Your task to perform on an android device: turn on the 12-hour format for clock Image 0: 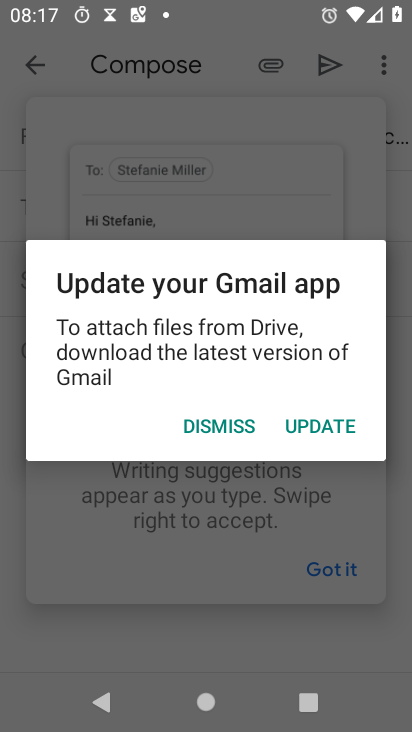
Step 0: press home button
Your task to perform on an android device: turn on the 12-hour format for clock Image 1: 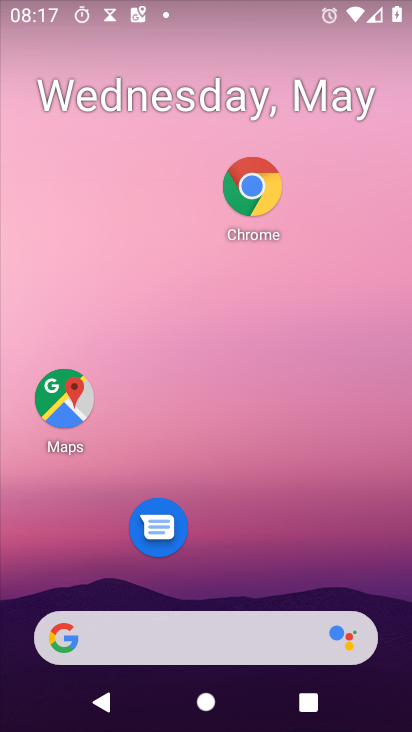
Step 1: drag from (268, 521) to (319, 87)
Your task to perform on an android device: turn on the 12-hour format for clock Image 2: 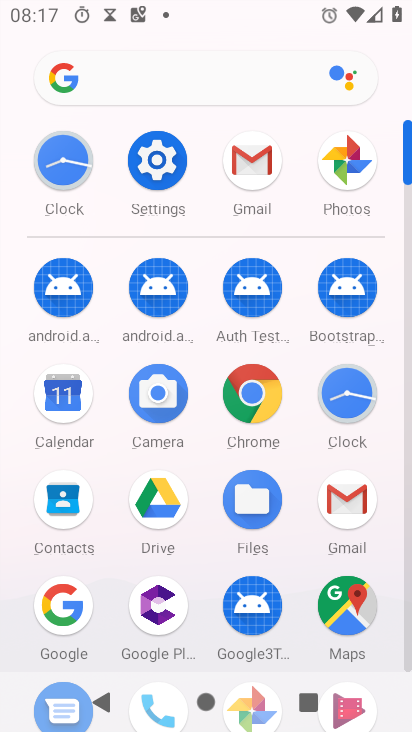
Step 2: click (347, 389)
Your task to perform on an android device: turn on the 12-hour format for clock Image 3: 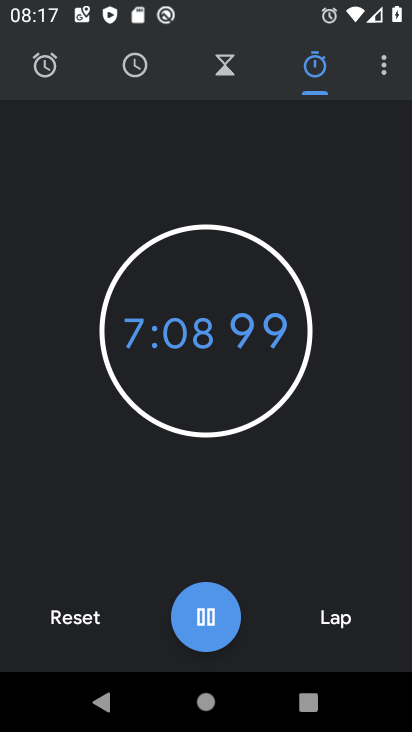
Step 3: click (384, 65)
Your task to perform on an android device: turn on the 12-hour format for clock Image 4: 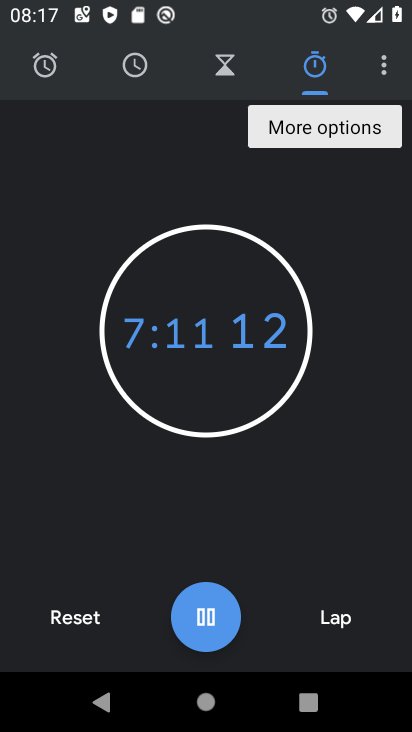
Step 4: click (383, 66)
Your task to perform on an android device: turn on the 12-hour format for clock Image 5: 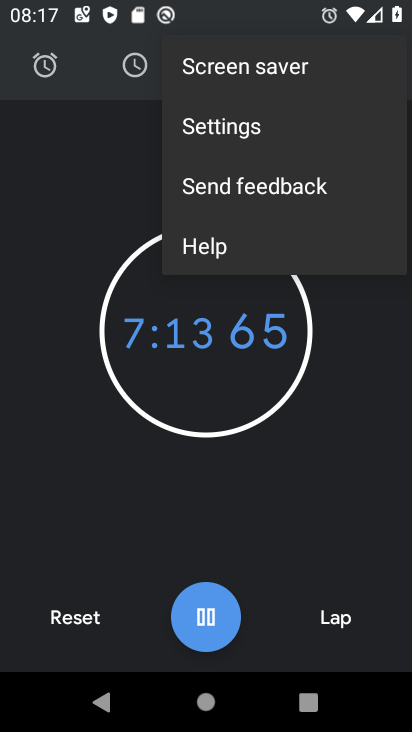
Step 5: click (232, 121)
Your task to perform on an android device: turn on the 12-hour format for clock Image 6: 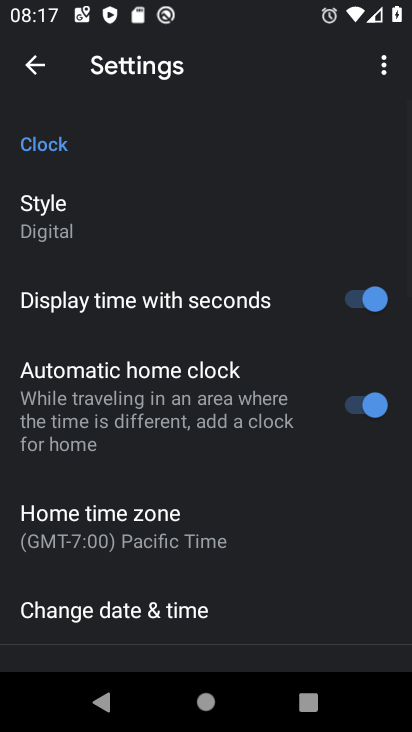
Step 6: drag from (267, 555) to (321, 142)
Your task to perform on an android device: turn on the 12-hour format for clock Image 7: 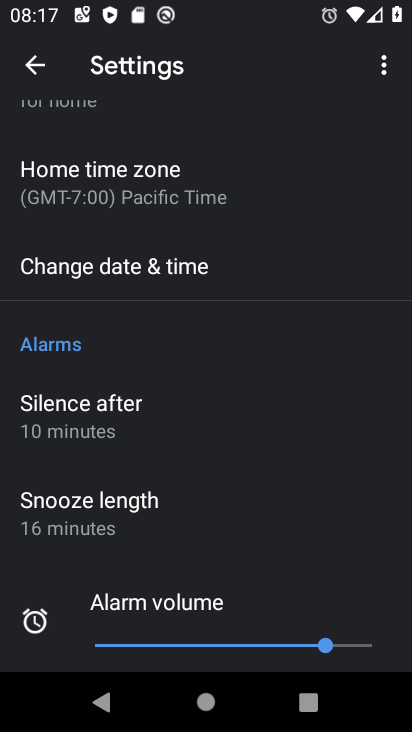
Step 7: drag from (253, 506) to (286, 214)
Your task to perform on an android device: turn on the 12-hour format for clock Image 8: 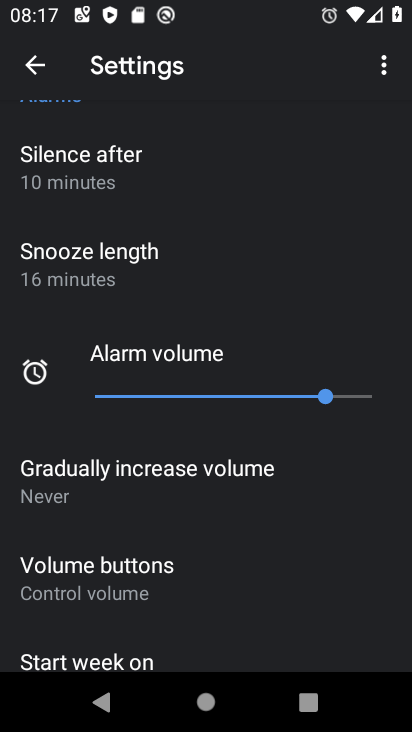
Step 8: drag from (313, 215) to (297, 459)
Your task to perform on an android device: turn on the 12-hour format for clock Image 9: 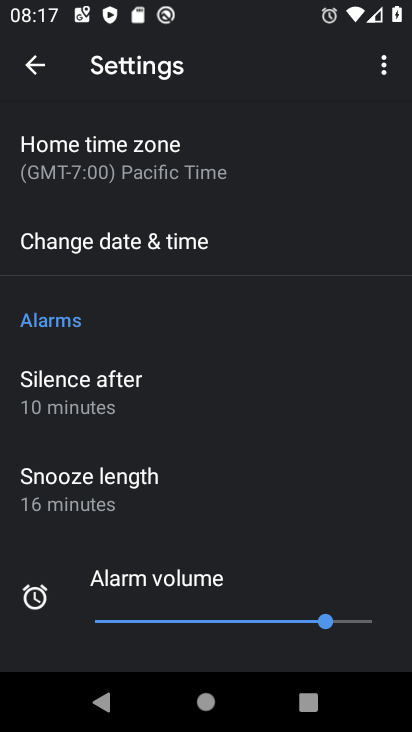
Step 9: click (158, 242)
Your task to perform on an android device: turn on the 12-hour format for clock Image 10: 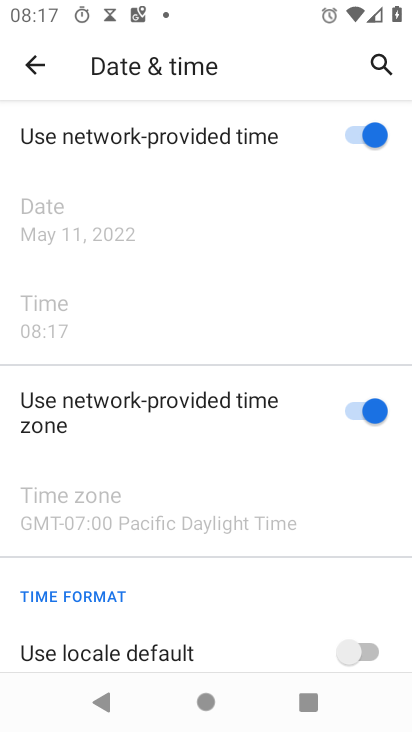
Step 10: drag from (281, 624) to (326, 156)
Your task to perform on an android device: turn on the 12-hour format for clock Image 11: 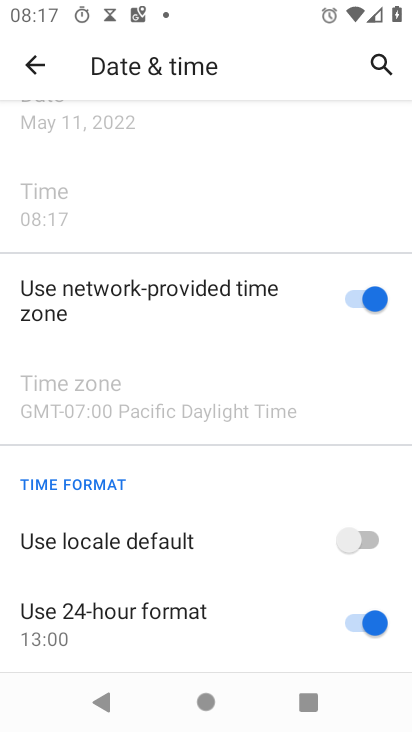
Step 11: click (361, 538)
Your task to perform on an android device: turn on the 12-hour format for clock Image 12: 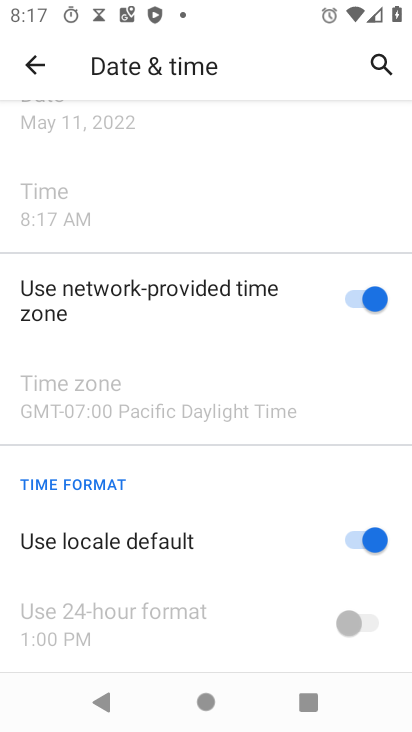
Step 12: task complete